Your task to perform on an android device: open app "Firefox Browser" (install if not already installed) and enter user name: "hashed@outlook.com" and password: "congestive" Image 0: 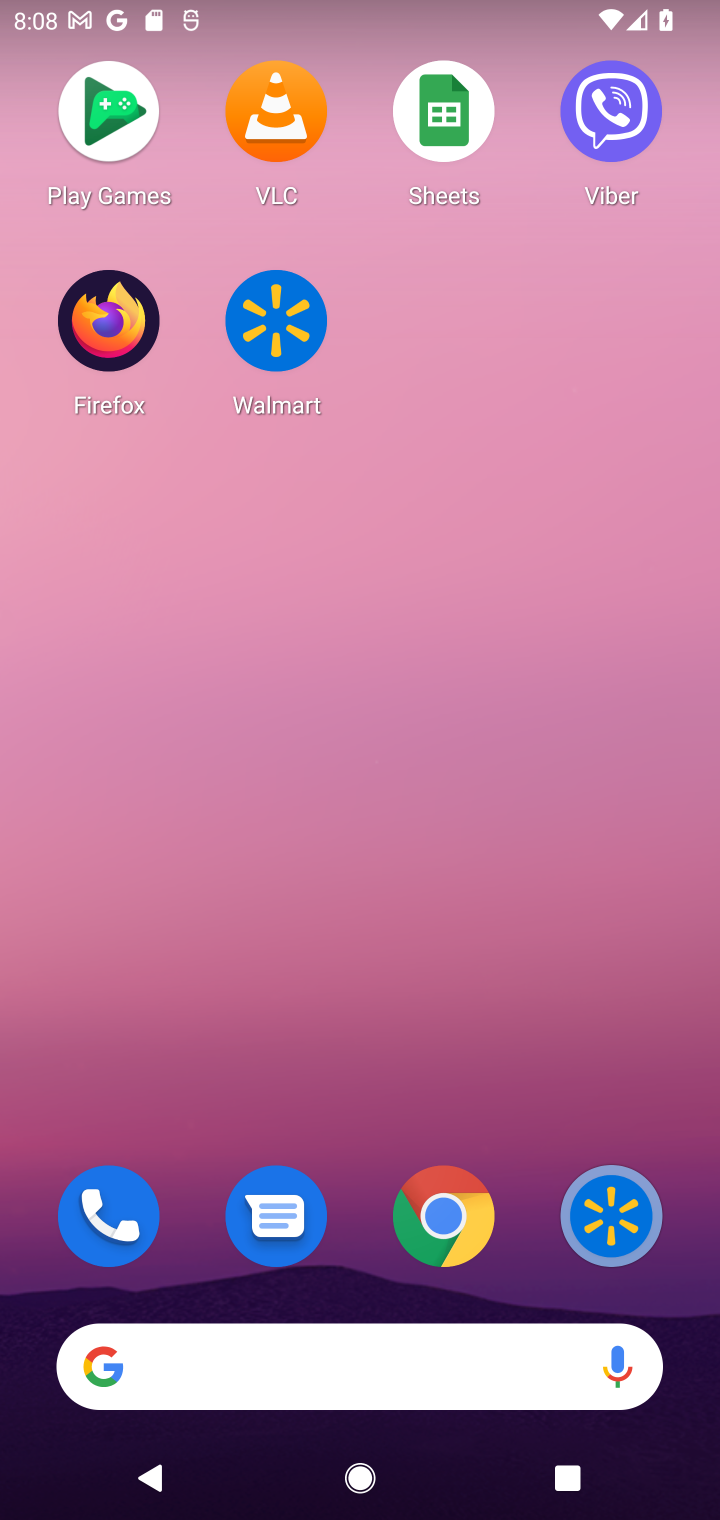
Step 0: drag from (345, 1185) to (582, 50)
Your task to perform on an android device: open app "Firefox Browser" (install if not already installed) and enter user name: "hashed@outlook.com" and password: "congestive" Image 1: 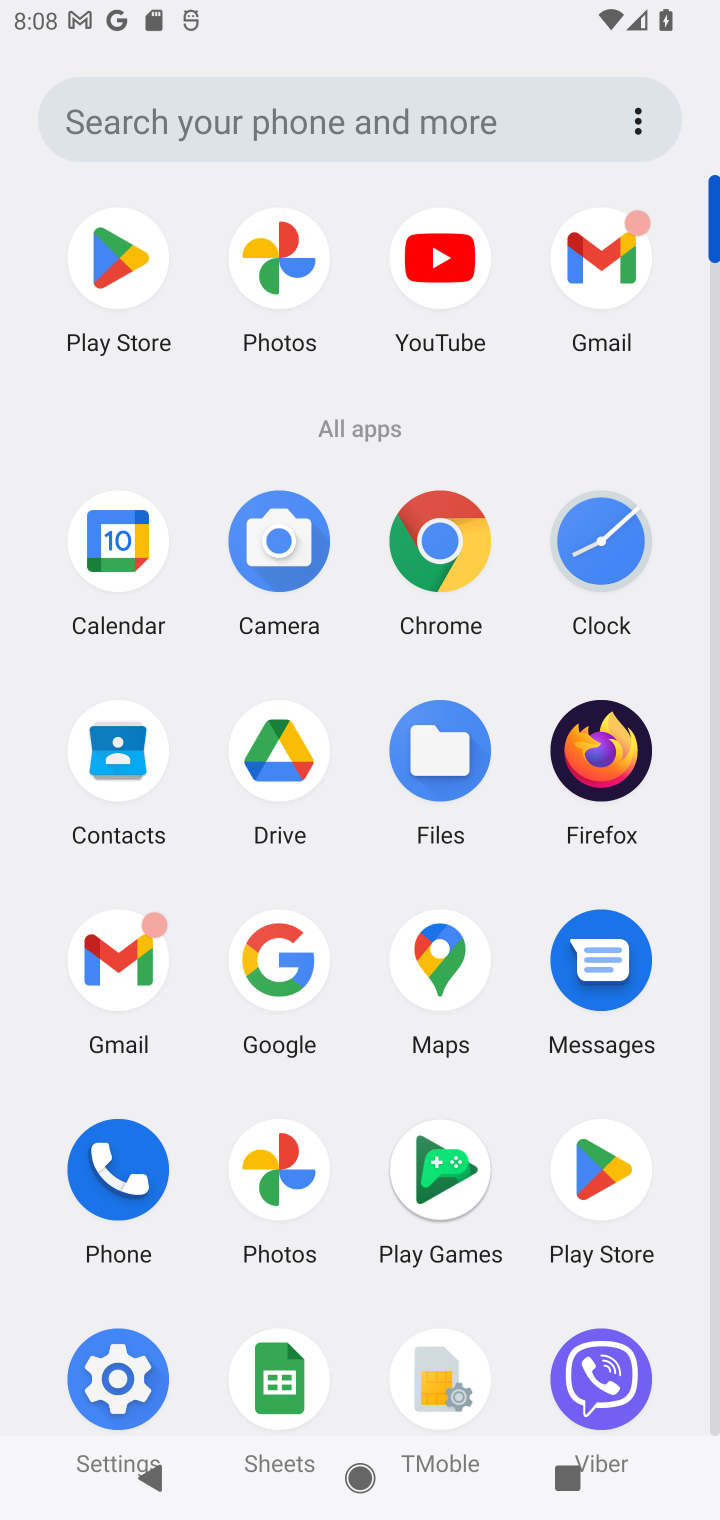
Step 1: click (130, 251)
Your task to perform on an android device: open app "Firefox Browser" (install if not already installed) and enter user name: "hashed@outlook.com" and password: "congestive" Image 2: 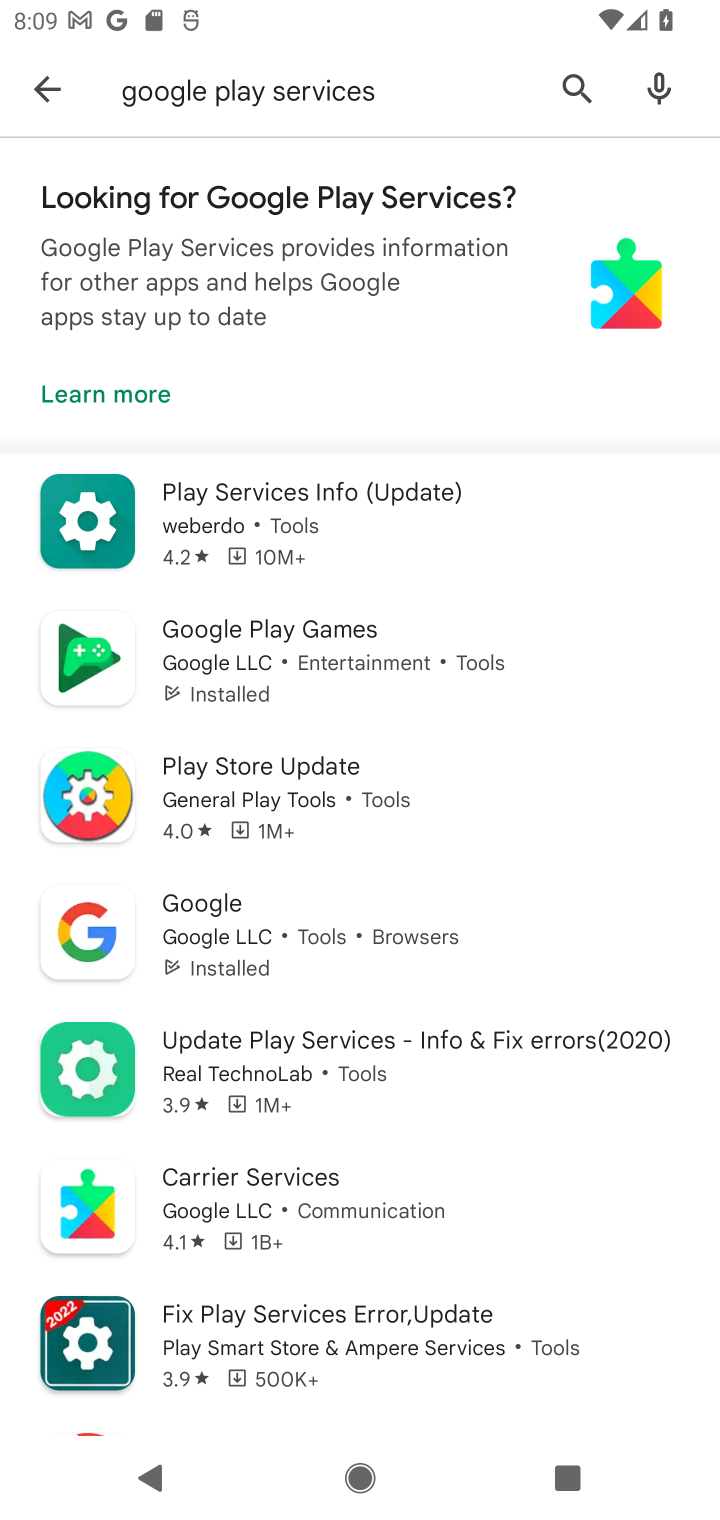
Step 2: click (598, 83)
Your task to perform on an android device: open app "Firefox Browser" (install if not already installed) and enter user name: "hashed@outlook.com" and password: "congestive" Image 3: 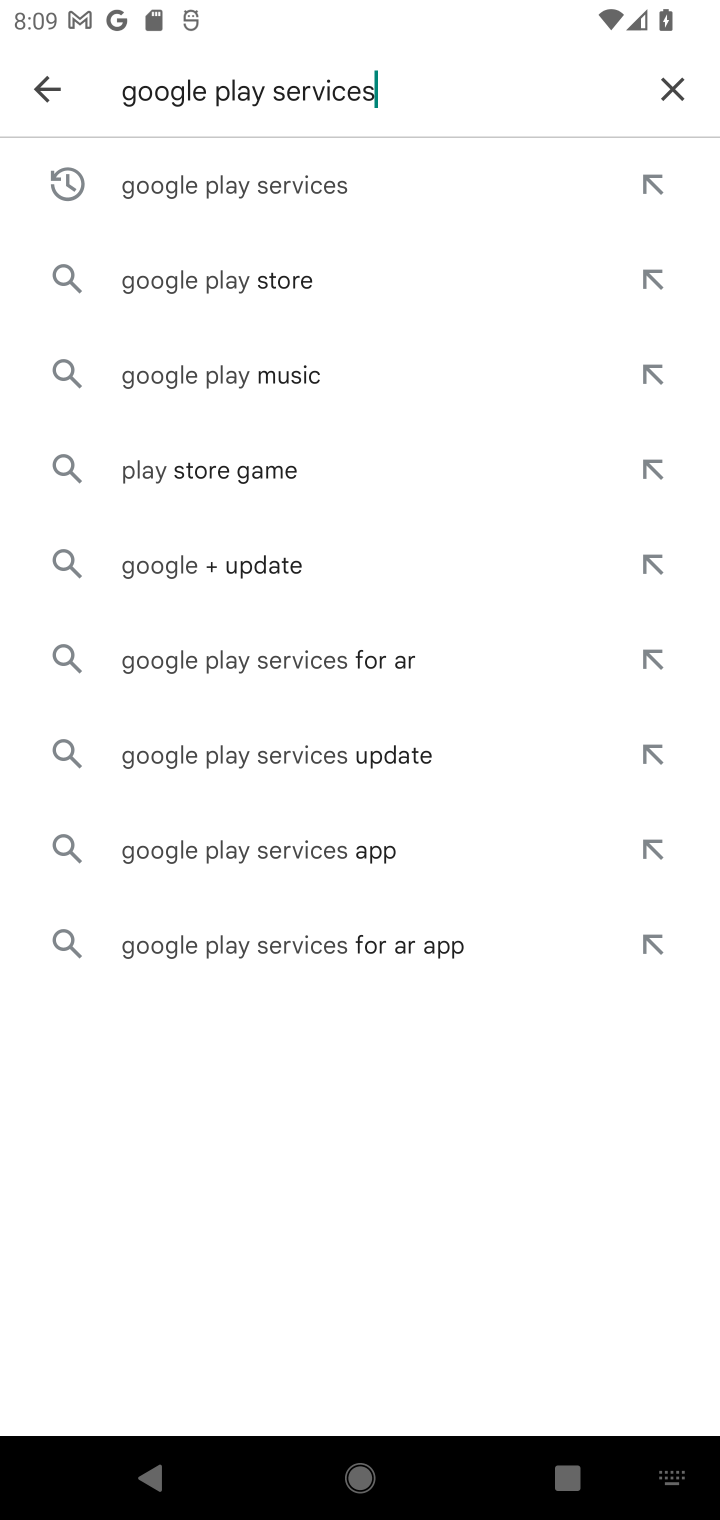
Step 3: click (654, 94)
Your task to perform on an android device: open app "Firefox Browser" (install if not already installed) and enter user name: "hashed@outlook.com" and password: "congestive" Image 4: 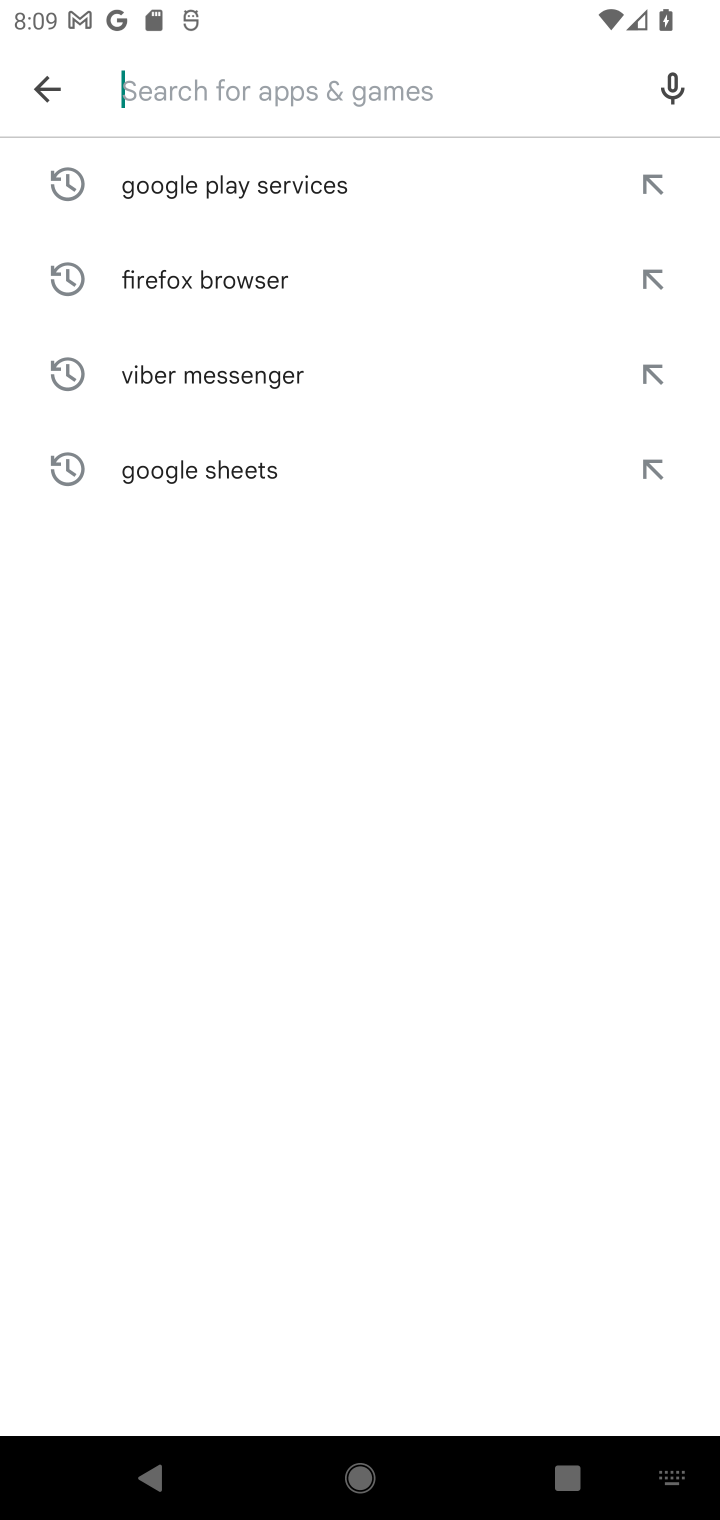
Step 4: click (409, 94)
Your task to perform on an android device: open app "Firefox Browser" (install if not already installed) and enter user name: "hashed@outlook.com" and password: "congestive" Image 5: 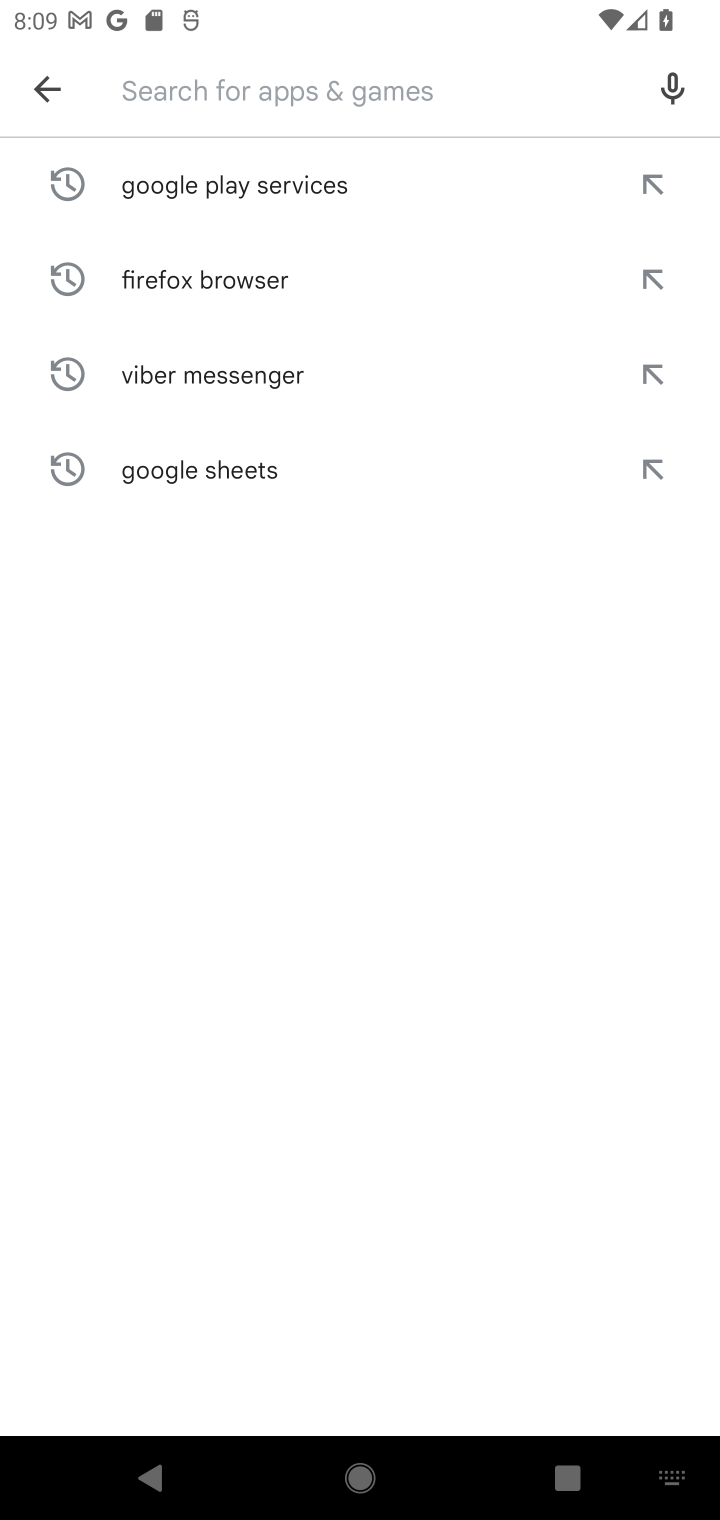
Step 5: type "Firefox Browser"
Your task to perform on an android device: open app "Firefox Browser" (install if not already installed) and enter user name: "hashed@outlook.com" and password: "congestive" Image 6: 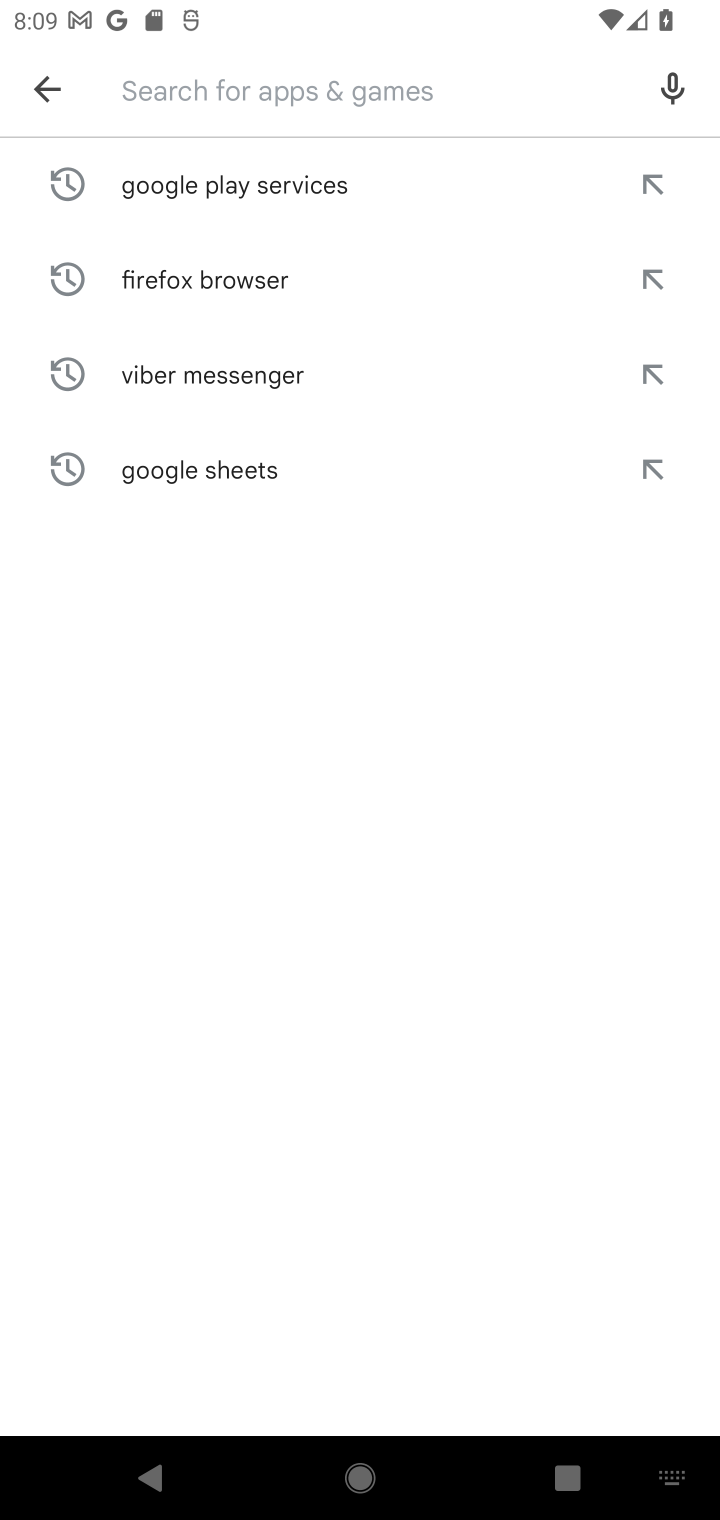
Step 6: click (356, 858)
Your task to perform on an android device: open app "Firefox Browser" (install if not already installed) and enter user name: "hashed@outlook.com" and password: "congestive" Image 7: 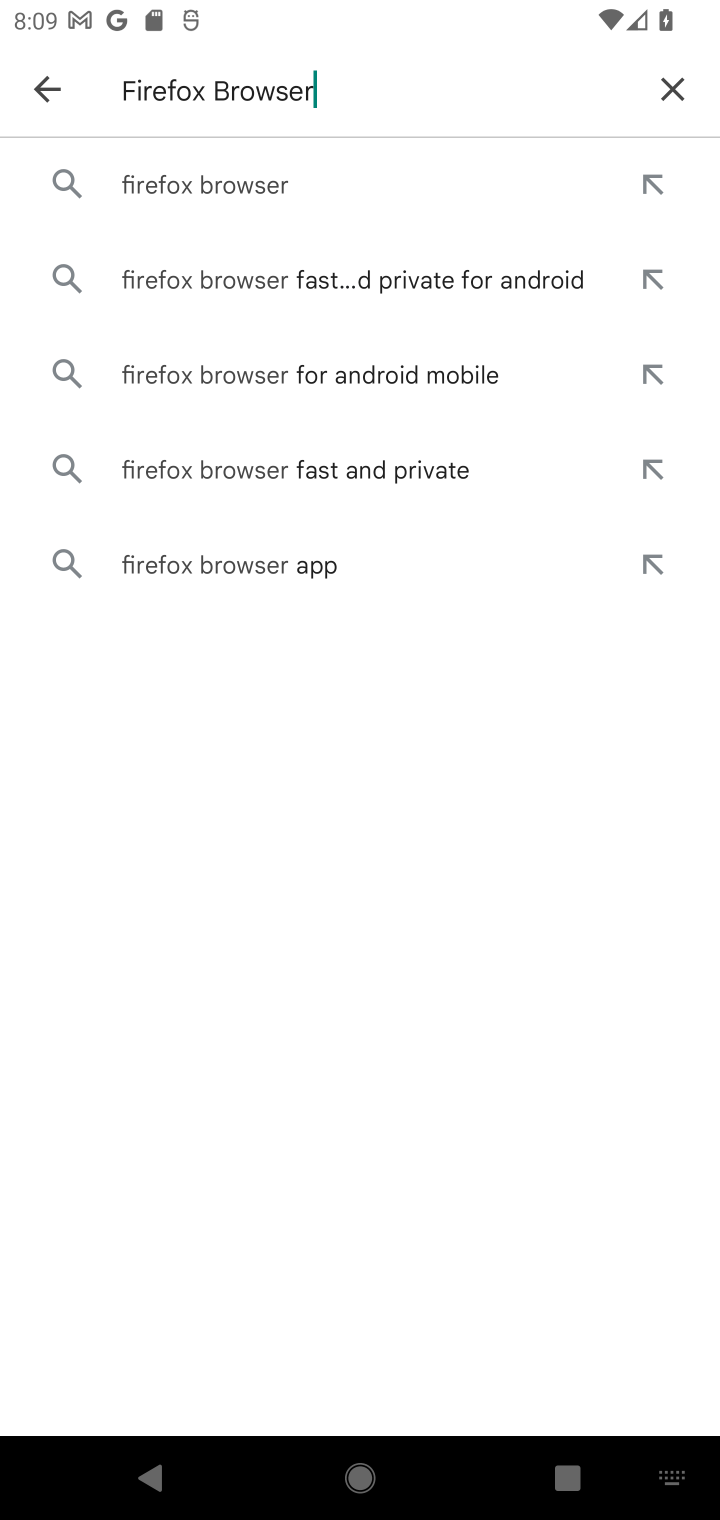
Step 7: click (302, 191)
Your task to perform on an android device: open app "Firefox Browser" (install if not already installed) and enter user name: "hashed@outlook.com" and password: "congestive" Image 8: 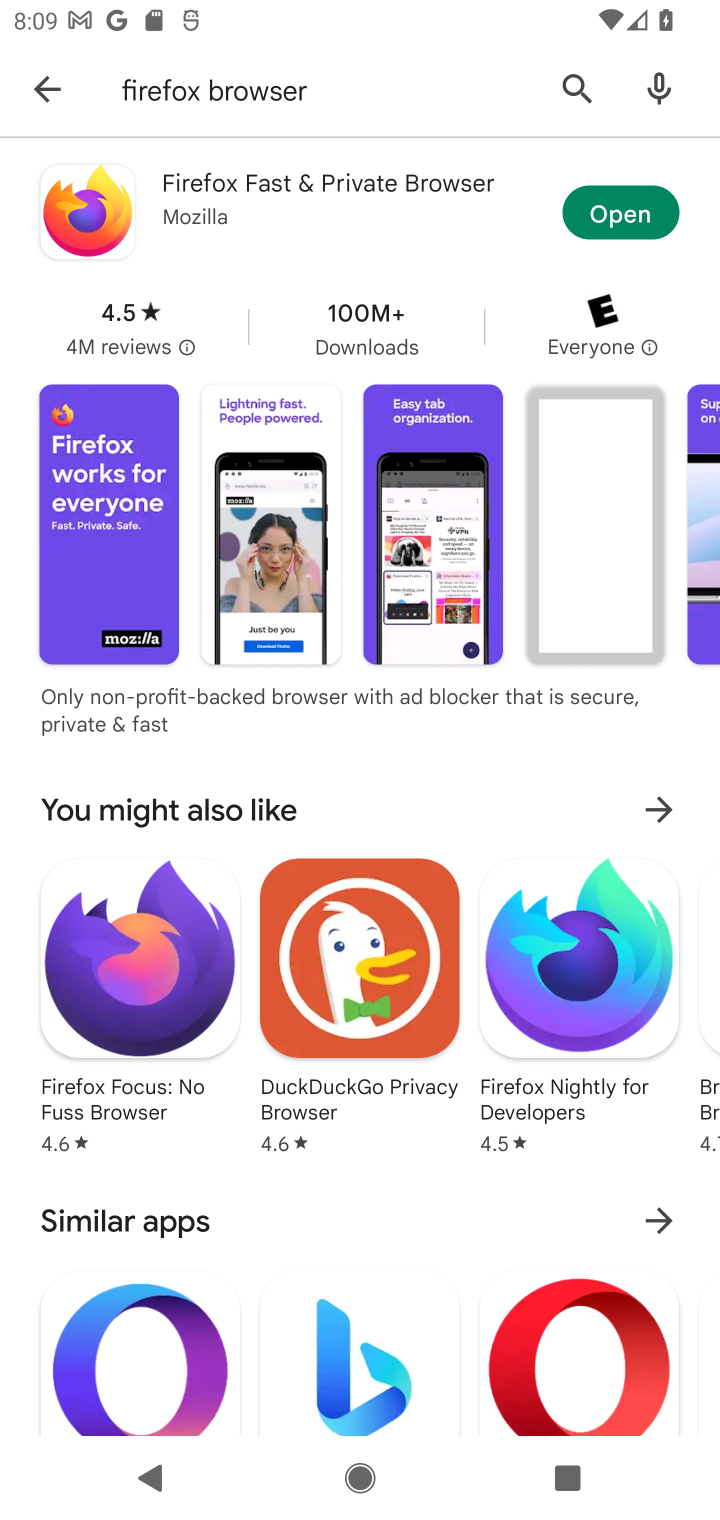
Step 8: click (578, 213)
Your task to perform on an android device: open app "Firefox Browser" (install if not already installed) and enter user name: "hashed@outlook.com" and password: "congestive" Image 9: 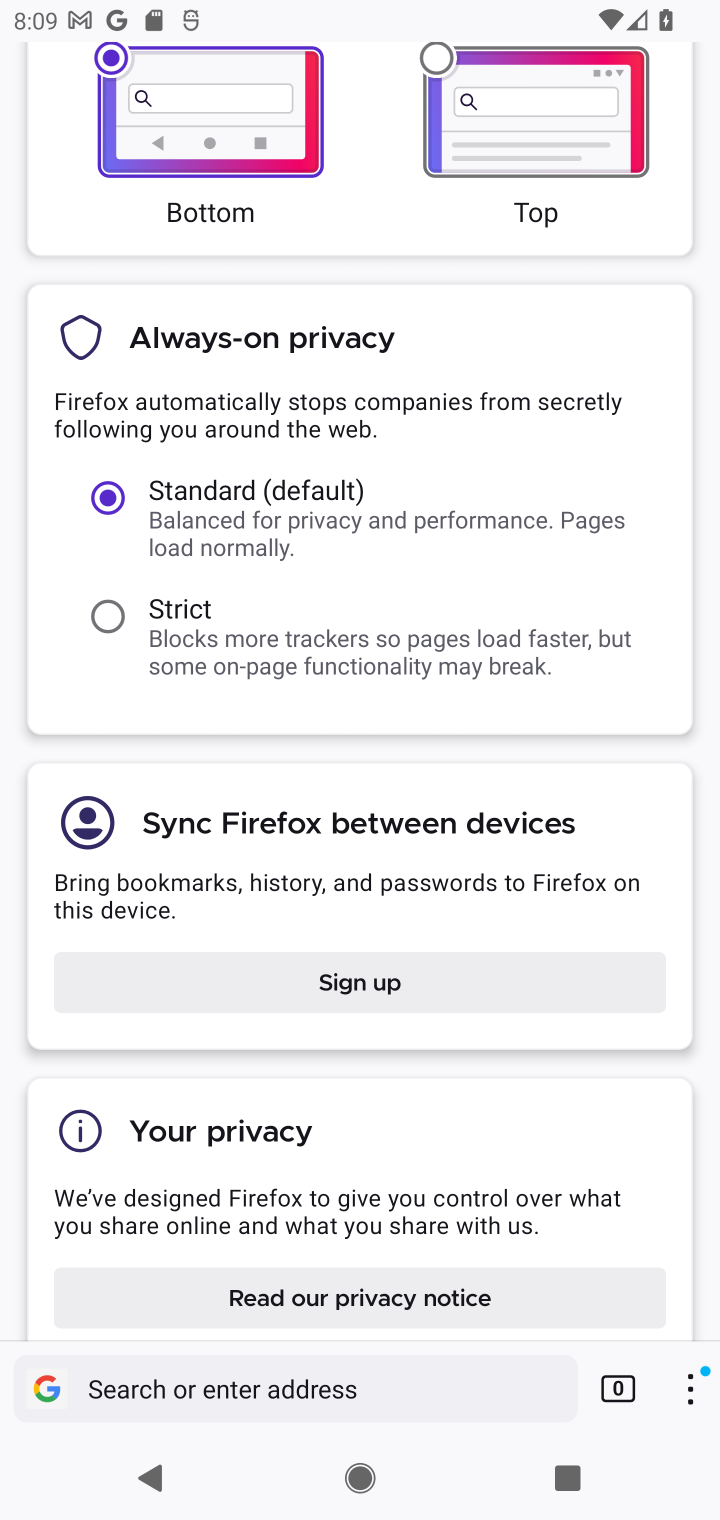
Step 9: drag from (564, 260) to (317, 1289)
Your task to perform on an android device: open app "Firefox Browser" (install if not already installed) and enter user name: "hashed@outlook.com" and password: "congestive" Image 10: 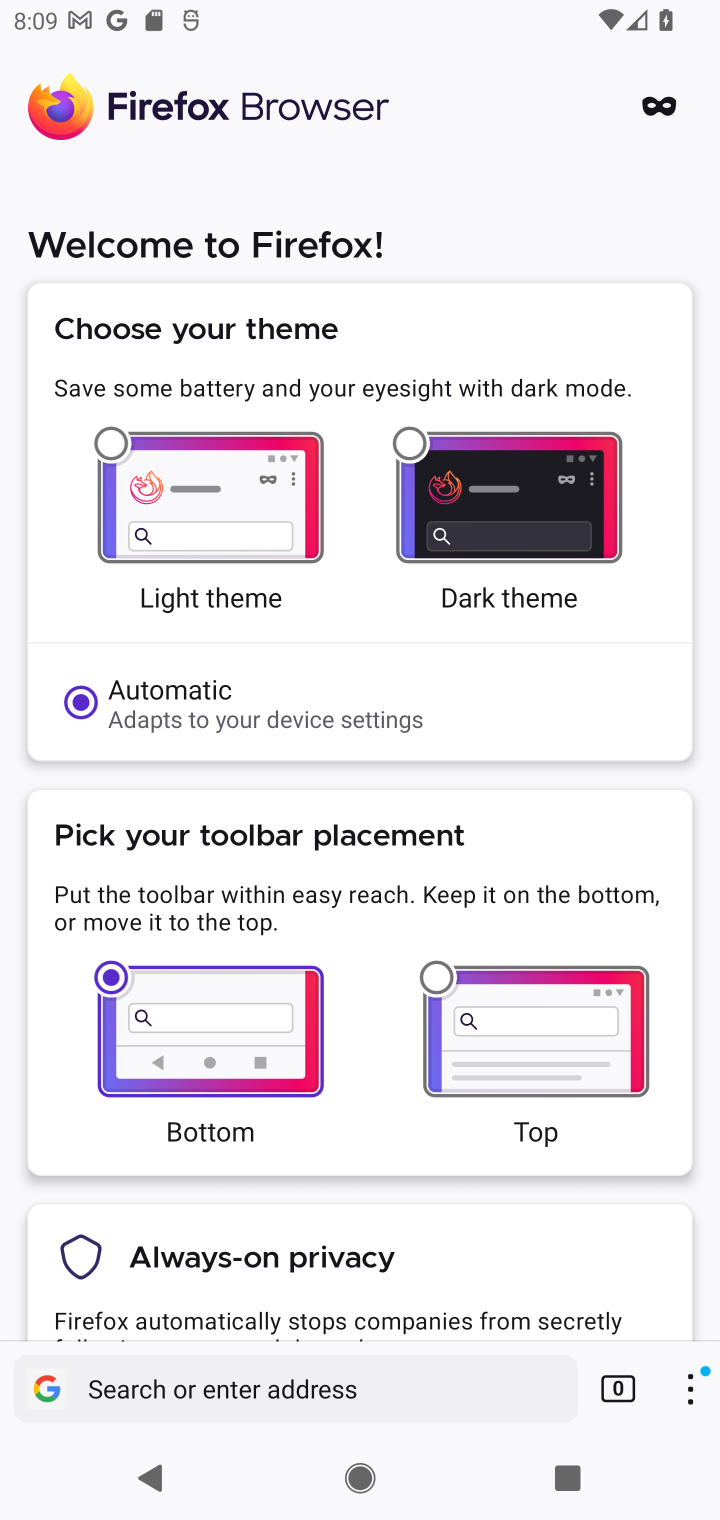
Step 10: drag from (426, 258) to (426, 1351)
Your task to perform on an android device: open app "Firefox Browser" (install if not already installed) and enter user name: "hashed@outlook.com" and password: "congestive" Image 11: 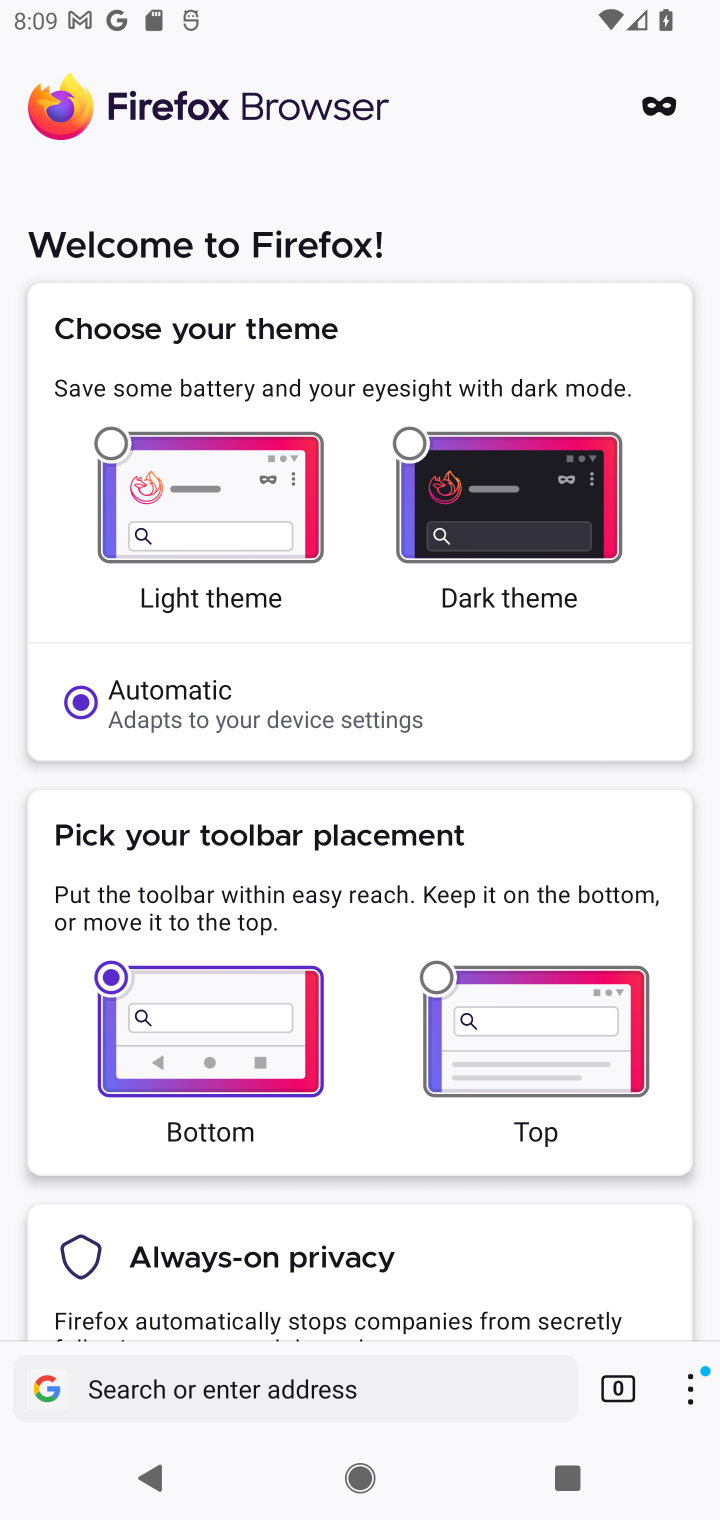
Step 11: click (93, 92)
Your task to perform on an android device: open app "Firefox Browser" (install if not already installed) and enter user name: "hashed@outlook.com" and password: "congestive" Image 12: 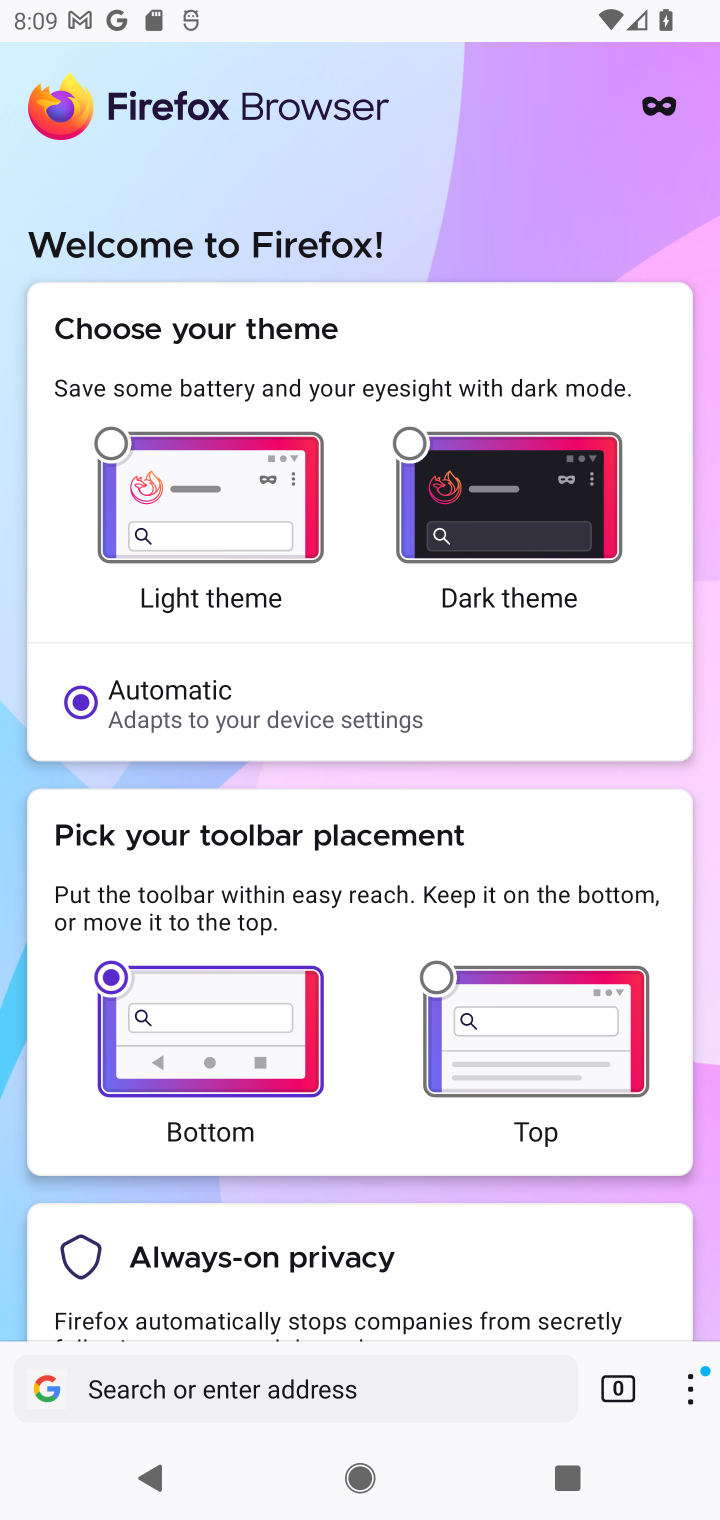
Step 12: click (154, 712)
Your task to perform on an android device: open app "Firefox Browser" (install if not already installed) and enter user name: "hashed@outlook.com" and password: "congestive" Image 13: 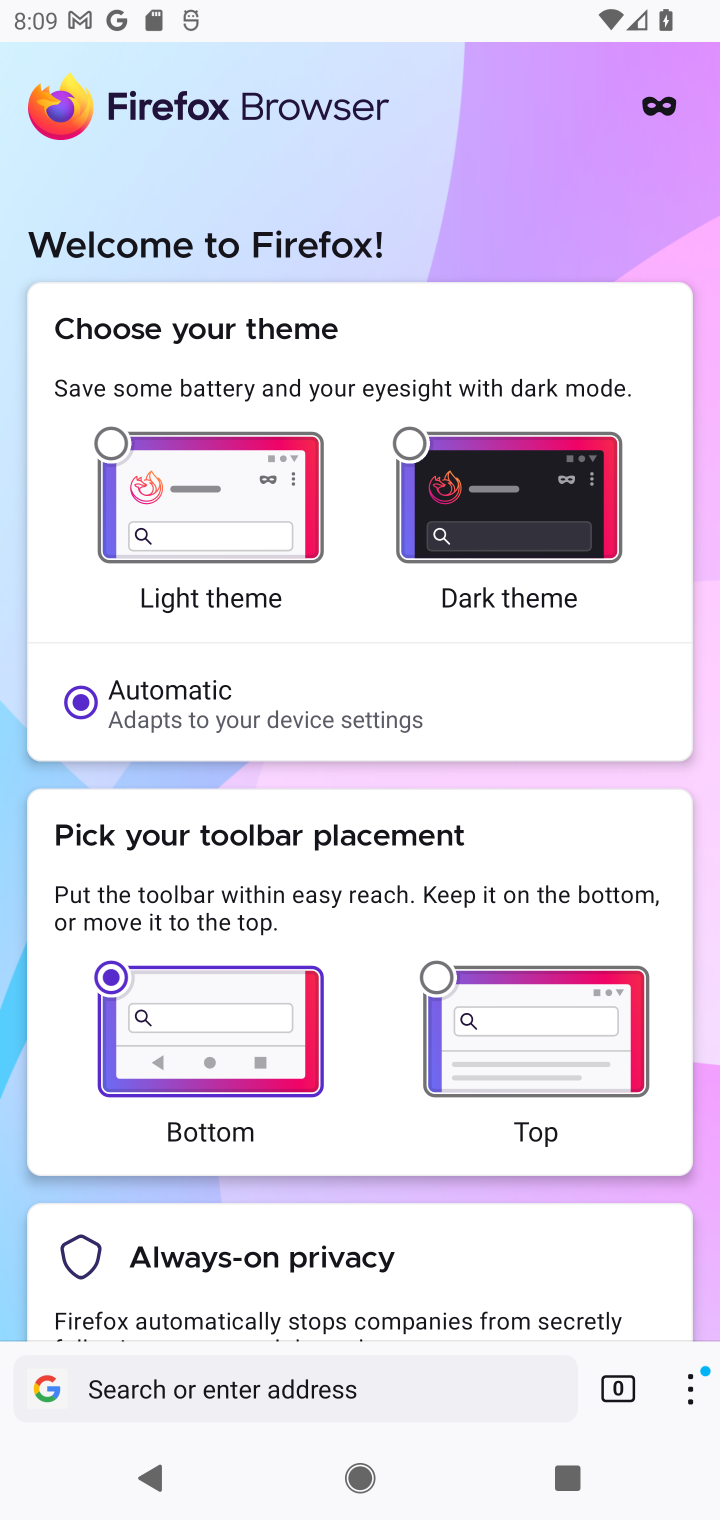
Step 13: drag from (325, 815) to (507, 67)
Your task to perform on an android device: open app "Firefox Browser" (install if not already installed) and enter user name: "hashed@outlook.com" and password: "congestive" Image 14: 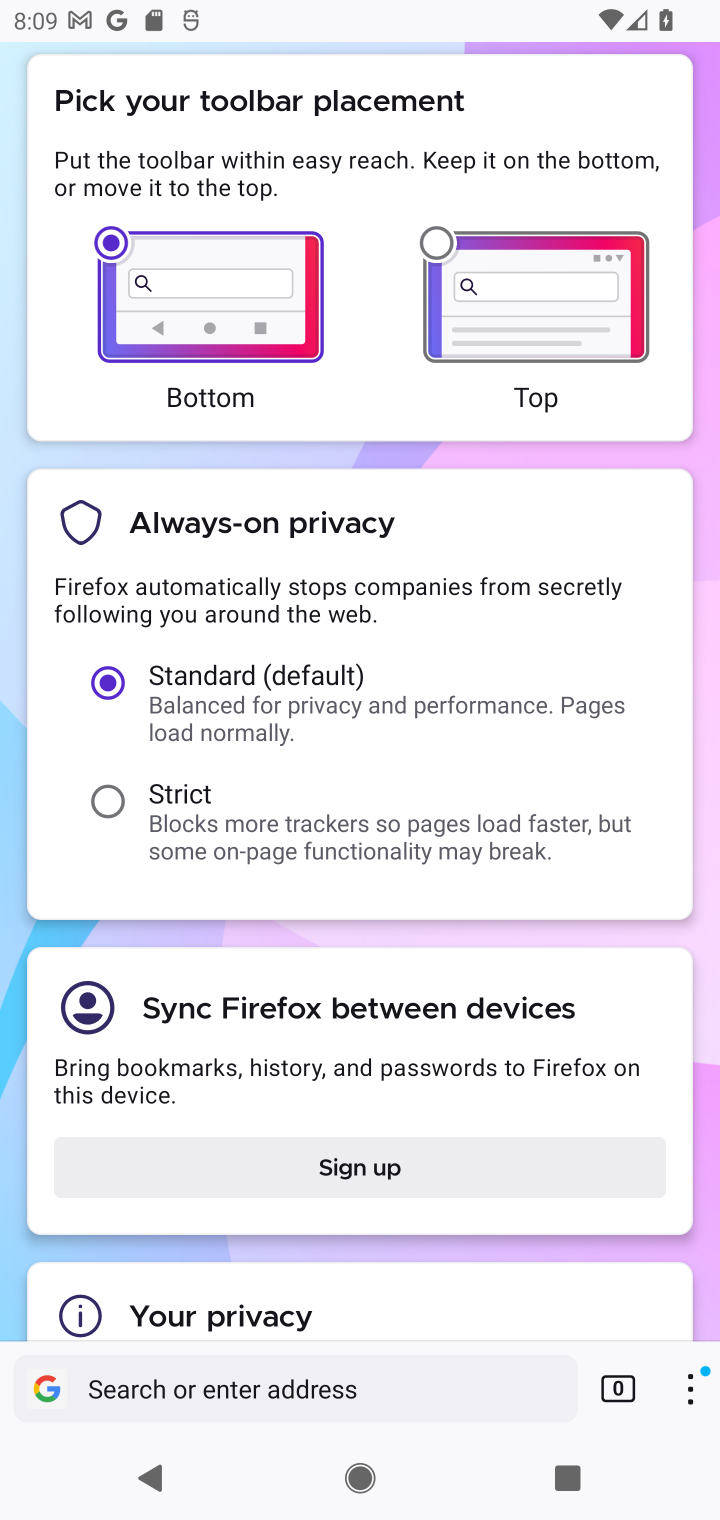
Step 14: drag from (482, 1089) to (551, 206)
Your task to perform on an android device: open app "Firefox Browser" (install if not already installed) and enter user name: "hashed@outlook.com" and password: "congestive" Image 15: 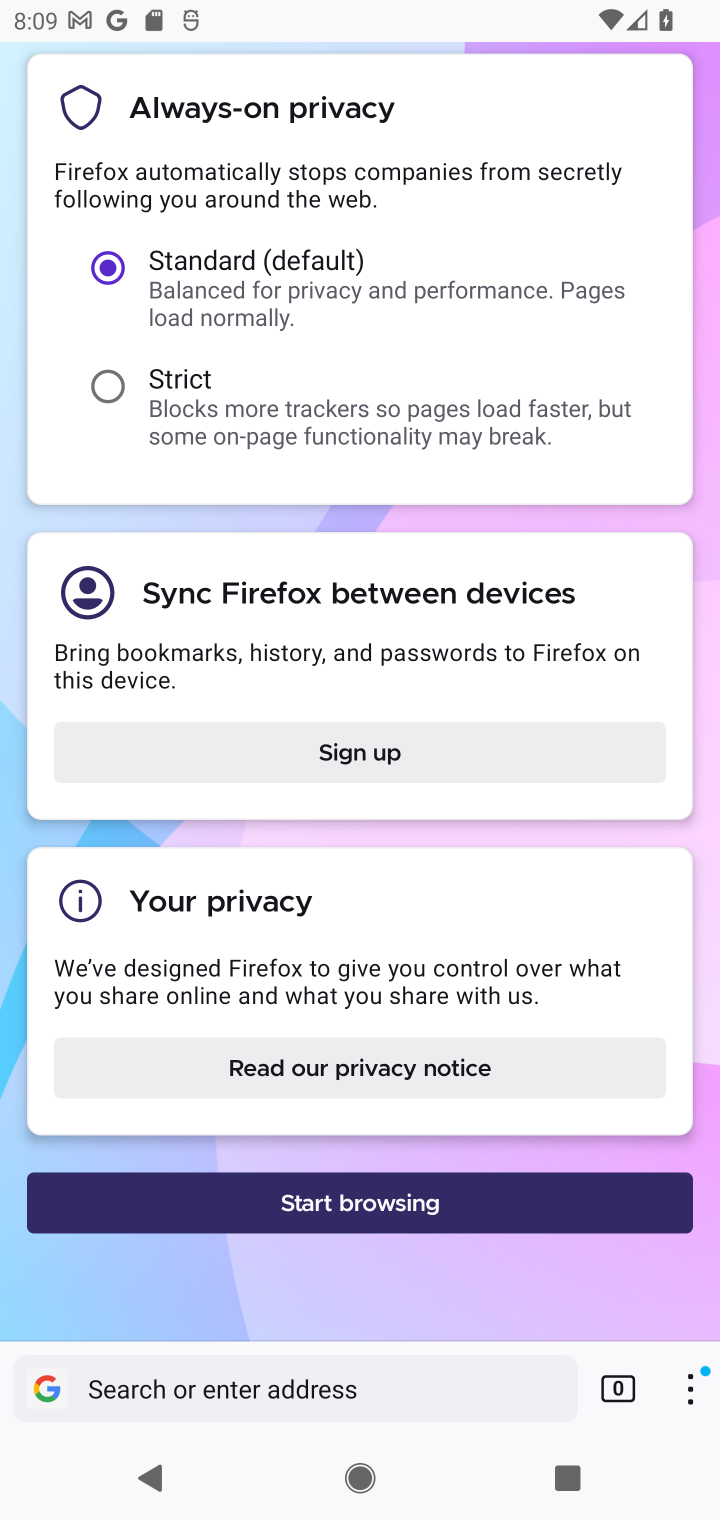
Step 15: drag from (309, 1114) to (456, 290)
Your task to perform on an android device: open app "Firefox Browser" (install if not already installed) and enter user name: "hashed@outlook.com" and password: "congestive" Image 16: 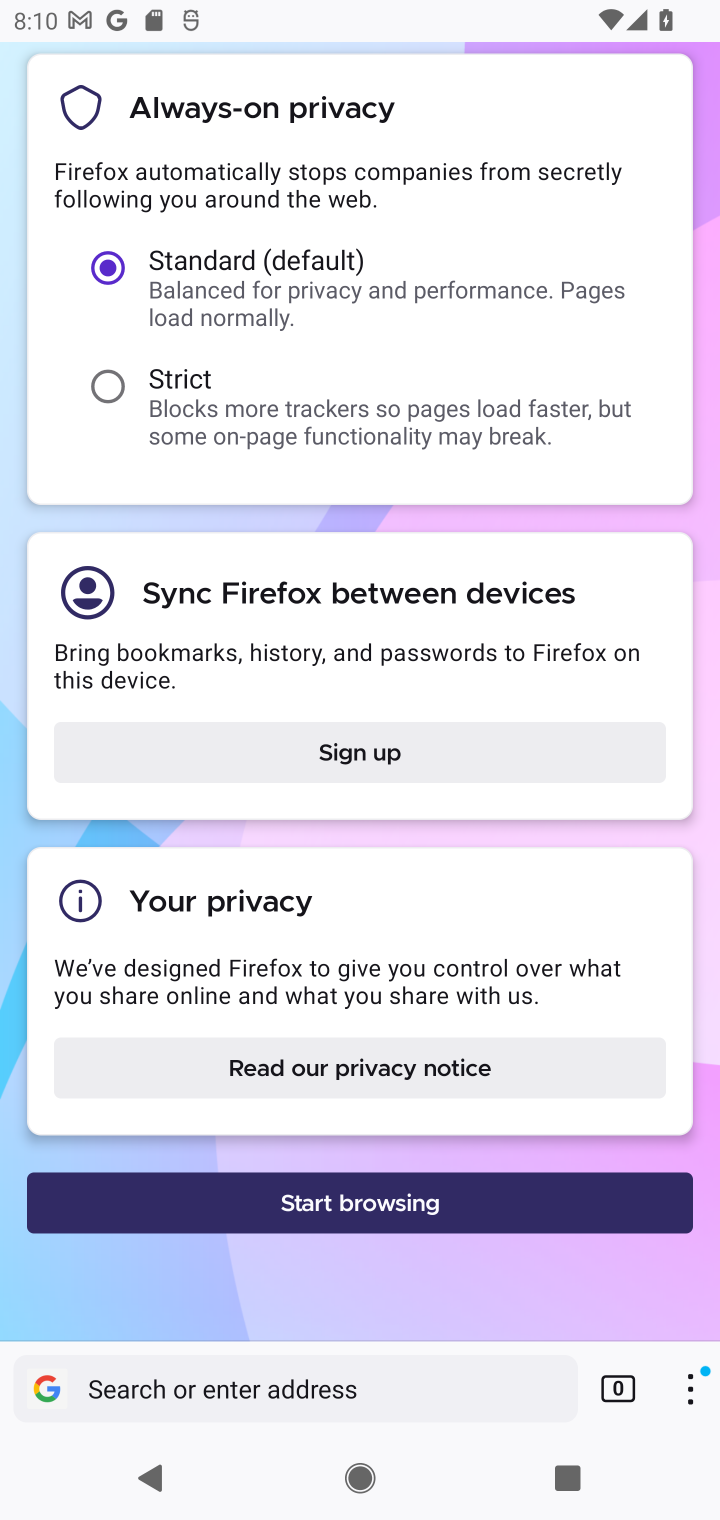
Step 16: click (363, 761)
Your task to perform on an android device: open app "Firefox Browser" (install if not already installed) and enter user name: "hashed@outlook.com" and password: "congestive" Image 17: 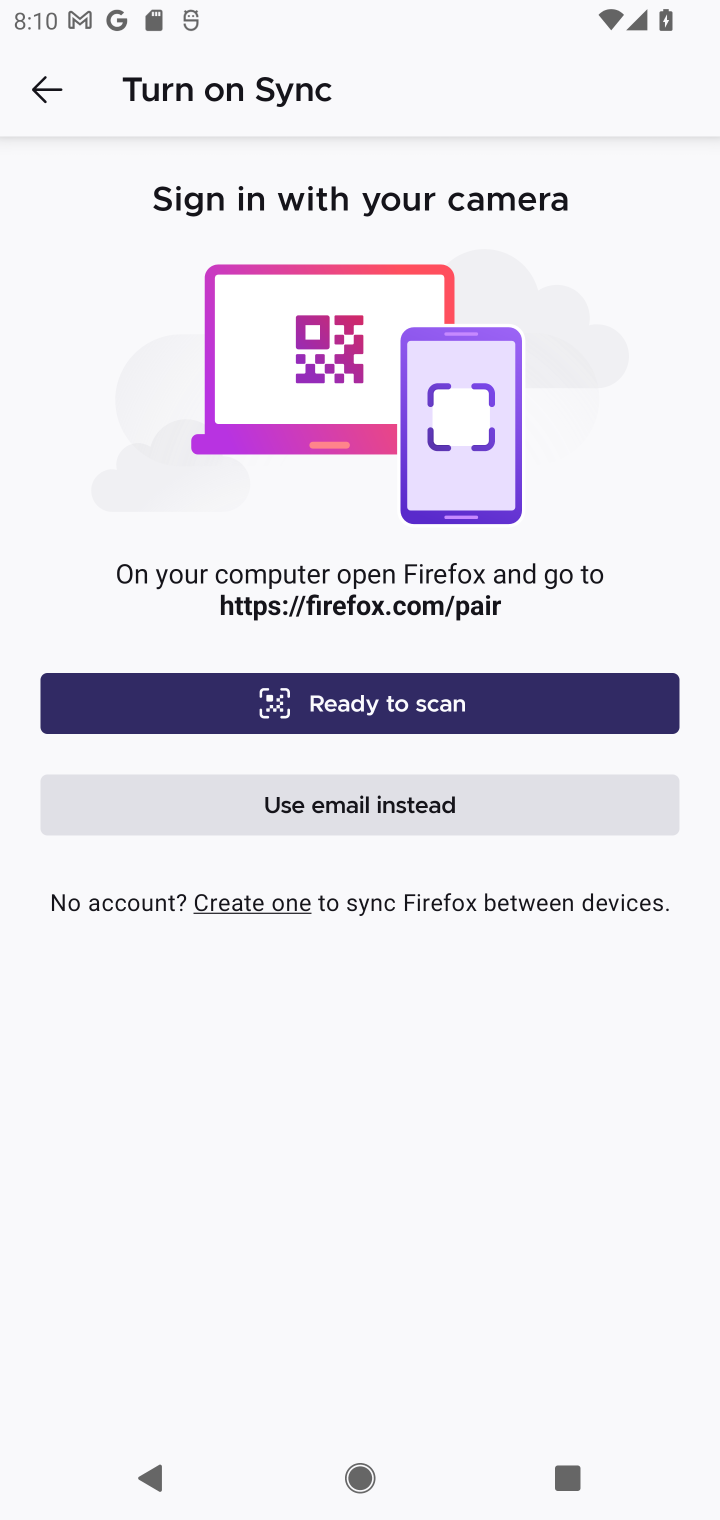
Step 17: click (383, 820)
Your task to perform on an android device: open app "Firefox Browser" (install if not already installed) and enter user name: "hashed@outlook.com" and password: "congestive" Image 18: 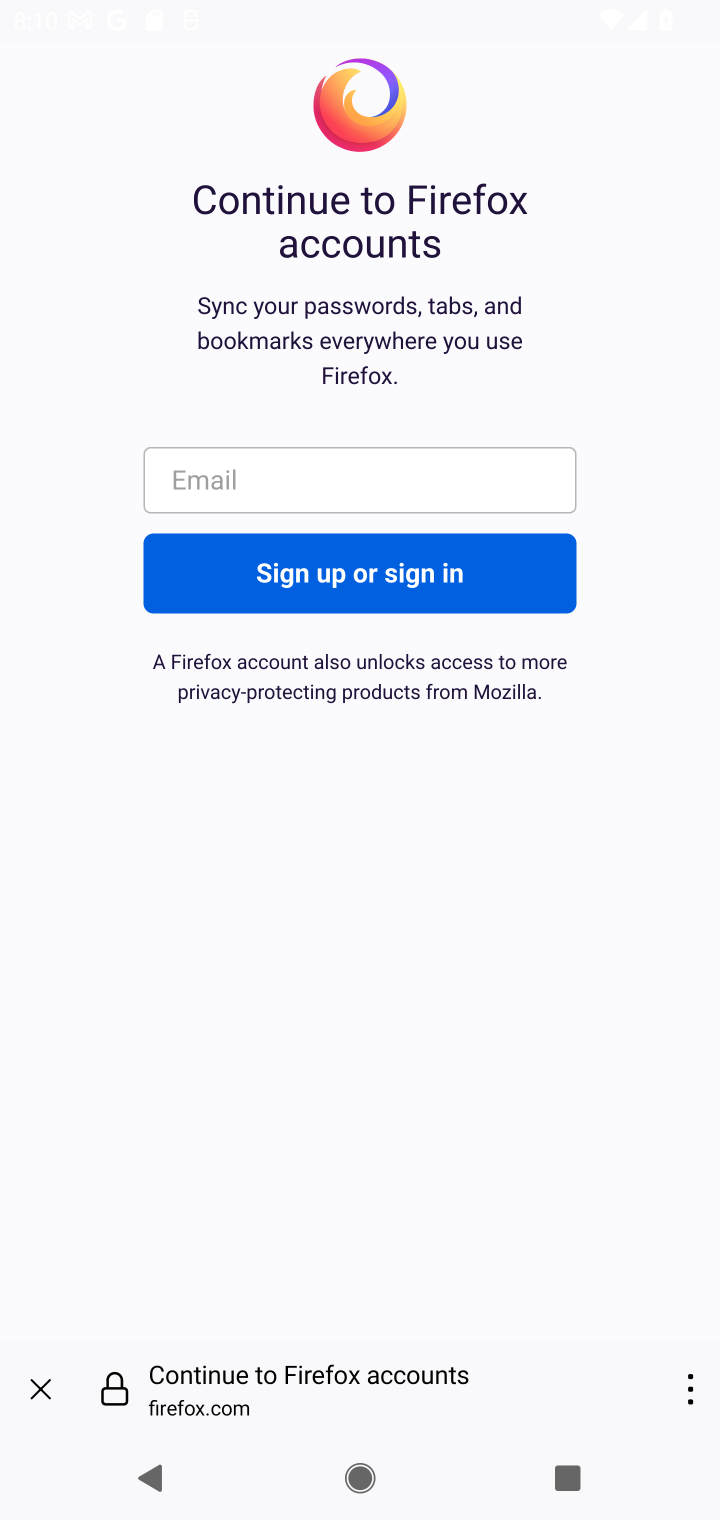
Step 18: click (208, 528)
Your task to perform on an android device: open app "Firefox Browser" (install if not already installed) and enter user name: "hashed@outlook.com" and password: "congestive" Image 19: 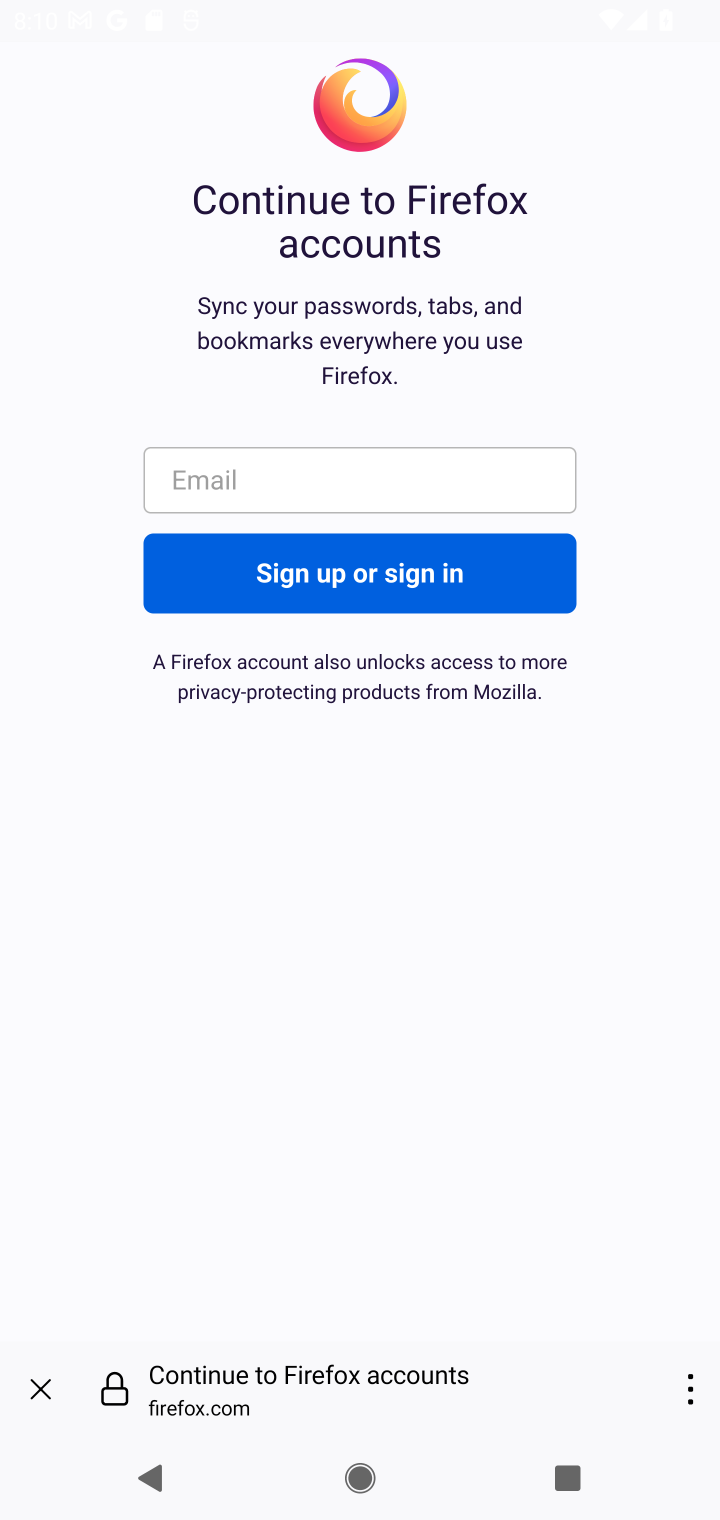
Step 19: click (210, 491)
Your task to perform on an android device: open app "Firefox Browser" (install if not already installed) and enter user name: "hashed@outlook.com" and password: "congestive" Image 20: 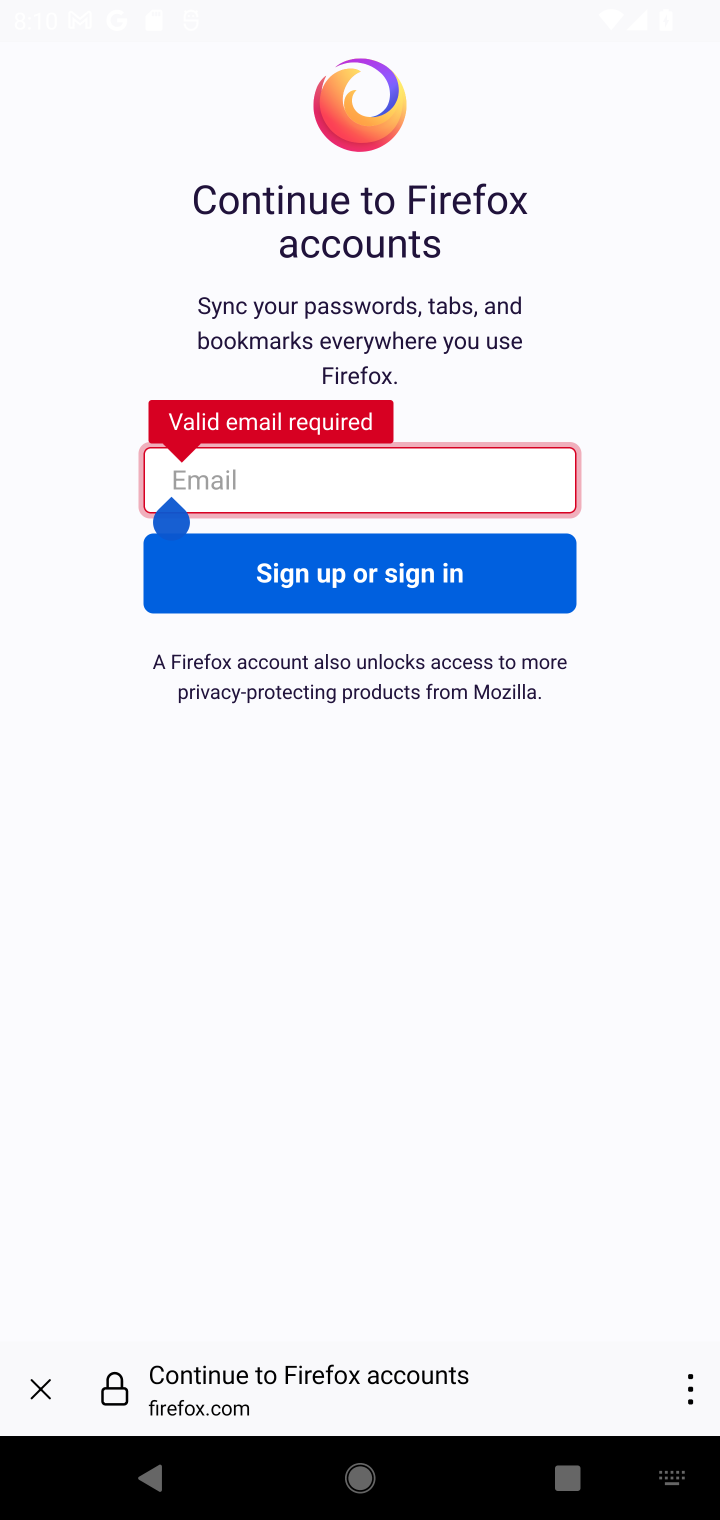
Step 20: type "hashed@outlook.com"
Your task to perform on an android device: open app "Firefox Browser" (install if not already installed) and enter user name: "hashed@outlook.com" and password: "congestive" Image 21: 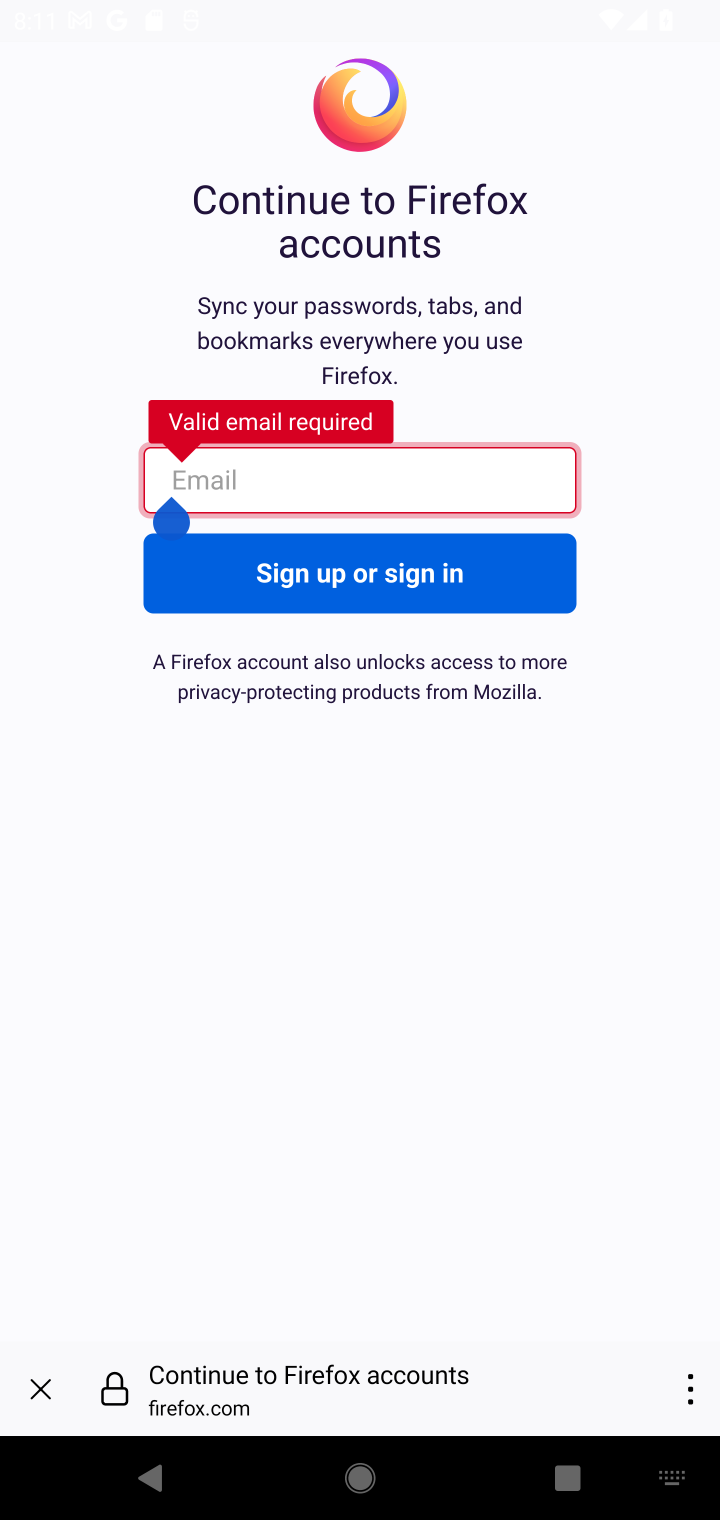
Step 21: click (372, 853)
Your task to perform on an android device: open app "Firefox Browser" (install if not already installed) and enter user name: "hashed@outlook.com" and password: "congestive" Image 22: 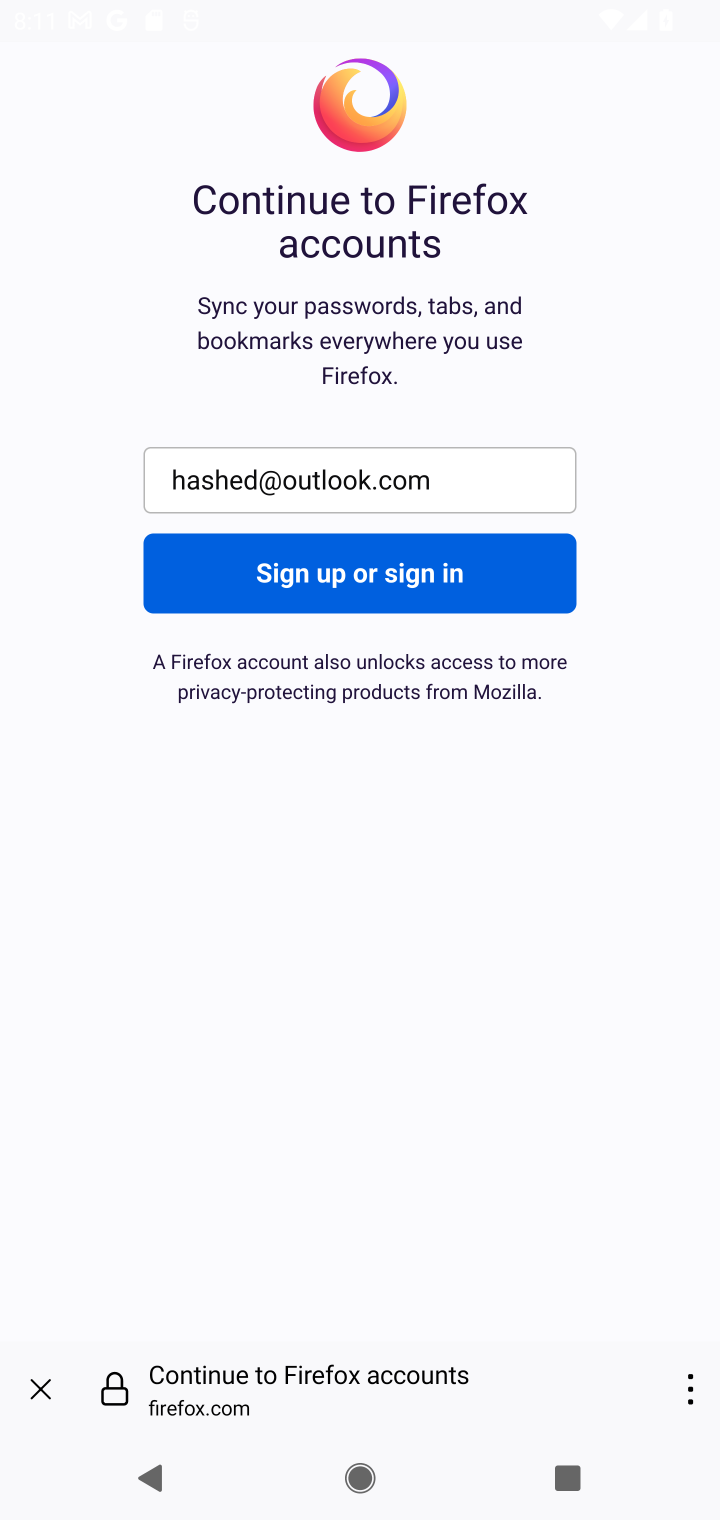
Step 22: click (394, 578)
Your task to perform on an android device: open app "Firefox Browser" (install if not already installed) and enter user name: "hashed@outlook.com" and password: "congestive" Image 23: 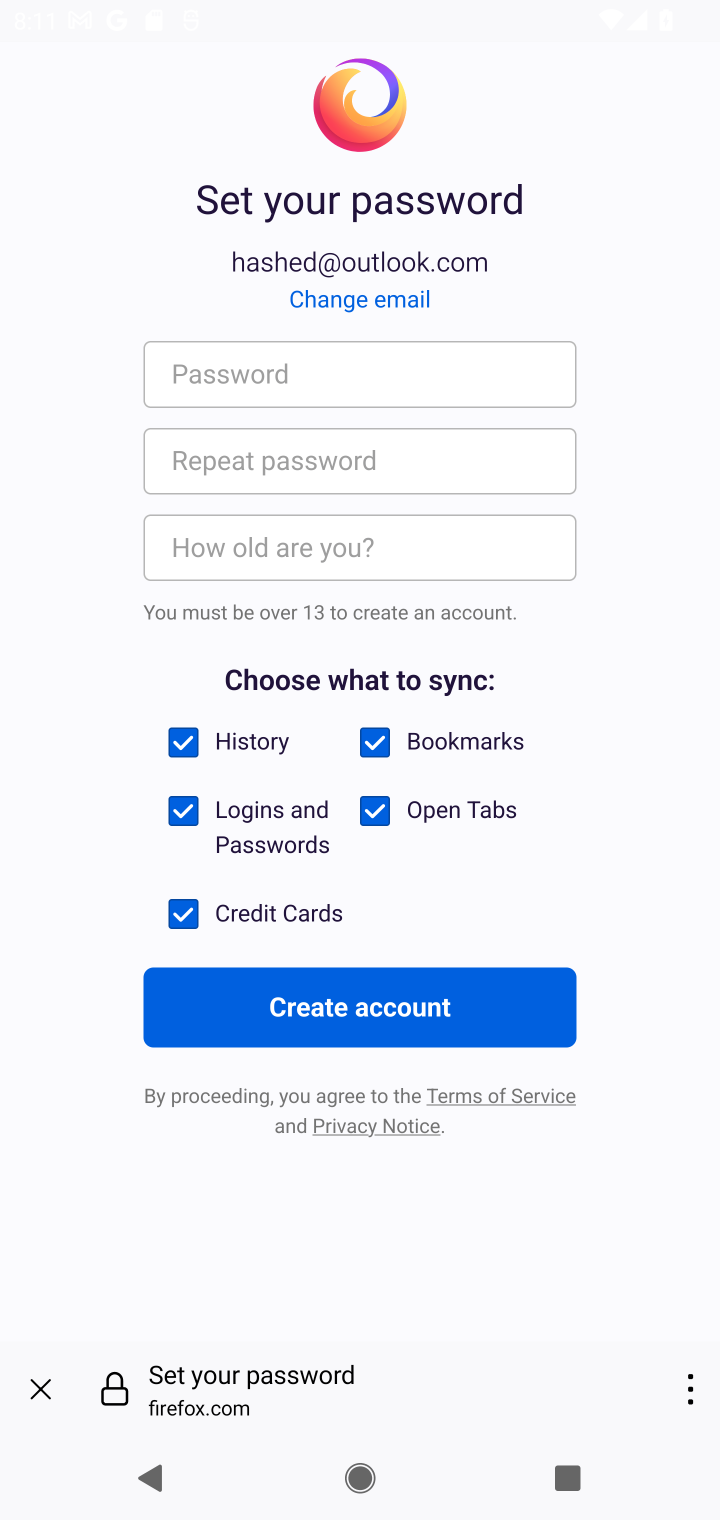
Step 23: click (283, 384)
Your task to perform on an android device: open app "Firefox Browser" (install if not already installed) and enter user name: "hashed@outlook.com" and password: "congestive" Image 24: 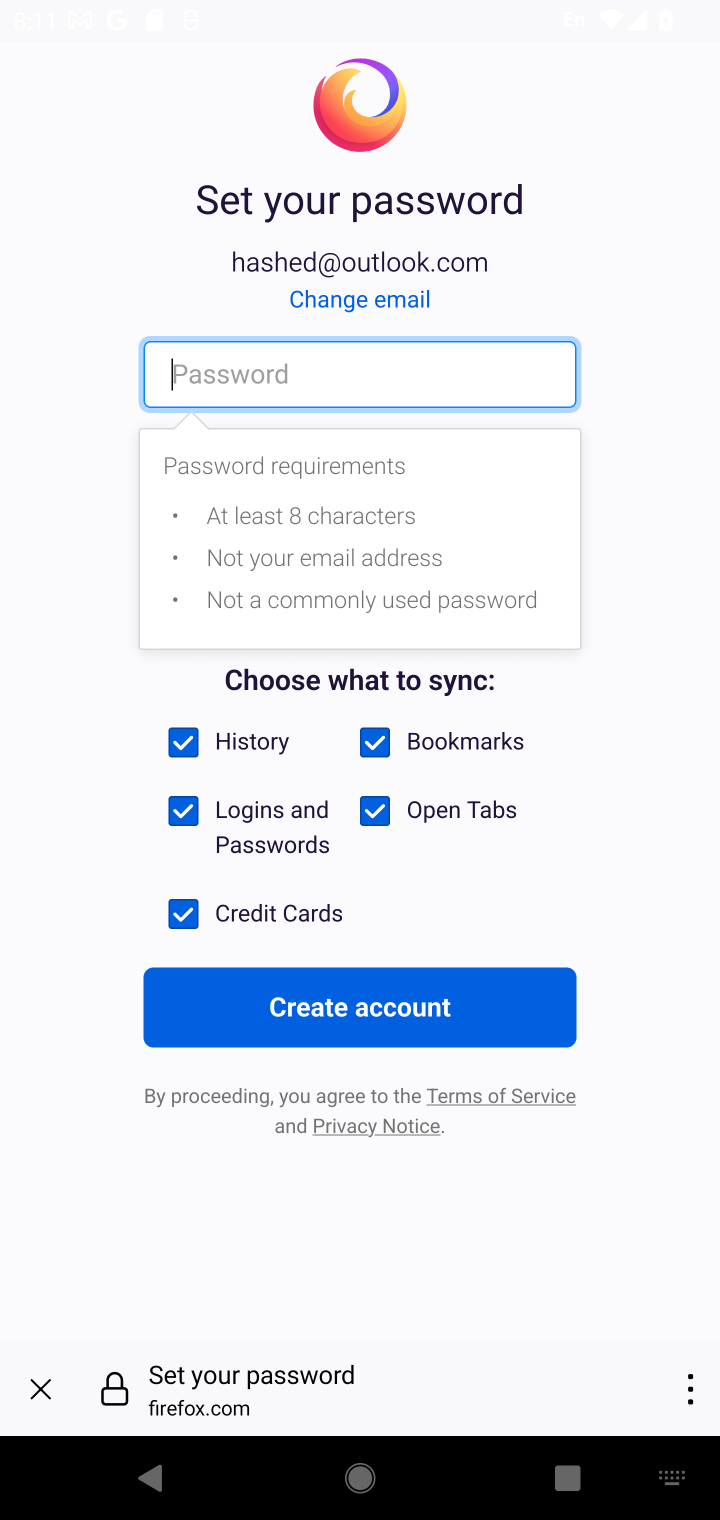
Step 24: task complete